Your task to perform on an android device: What's the weather today? Image 0: 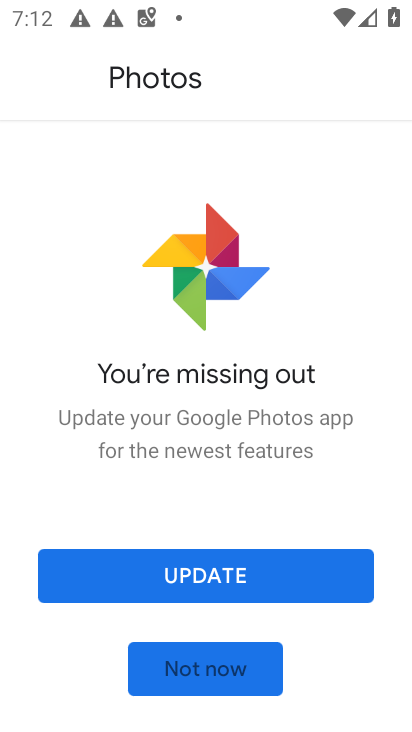
Step 0: press home button
Your task to perform on an android device: What's the weather today? Image 1: 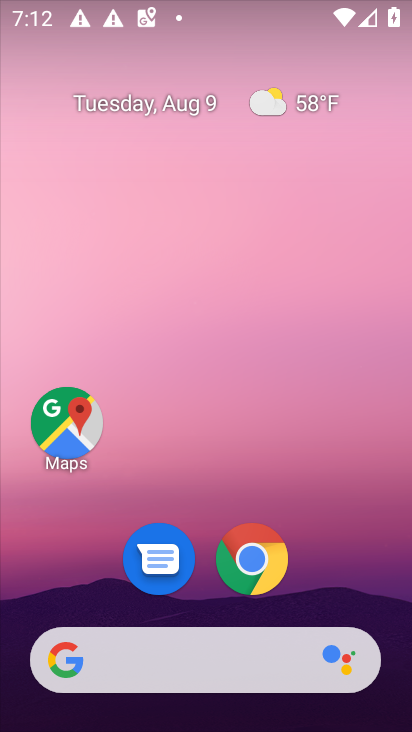
Step 1: click (168, 660)
Your task to perform on an android device: What's the weather today? Image 2: 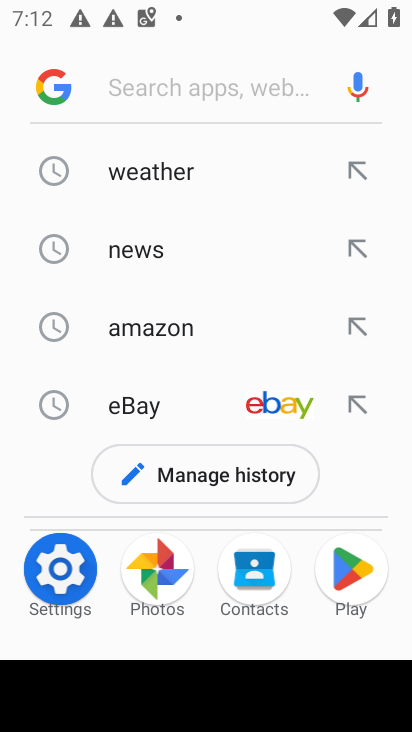
Step 2: click (168, 179)
Your task to perform on an android device: What's the weather today? Image 3: 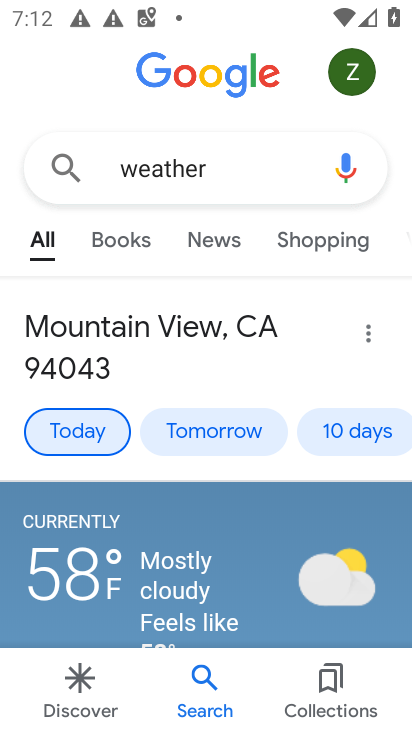
Step 3: task complete